Your task to perform on an android device: Go to Google Image 0: 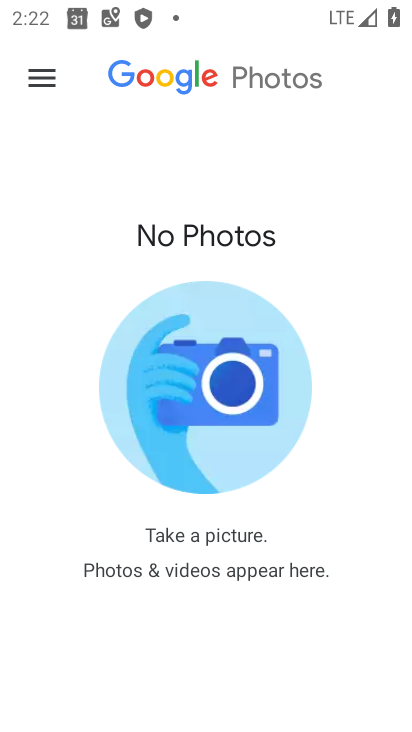
Step 0: press home button
Your task to perform on an android device: Go to Google Image 1: 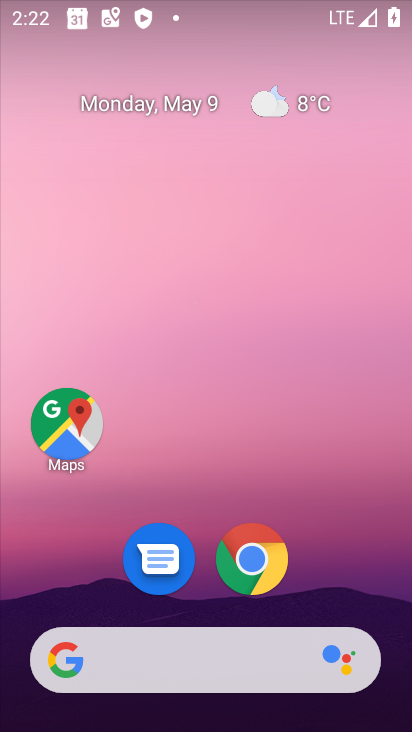
Step 1: click (147, 674)
Your task to perform on an android device: Go to Google Image 2: 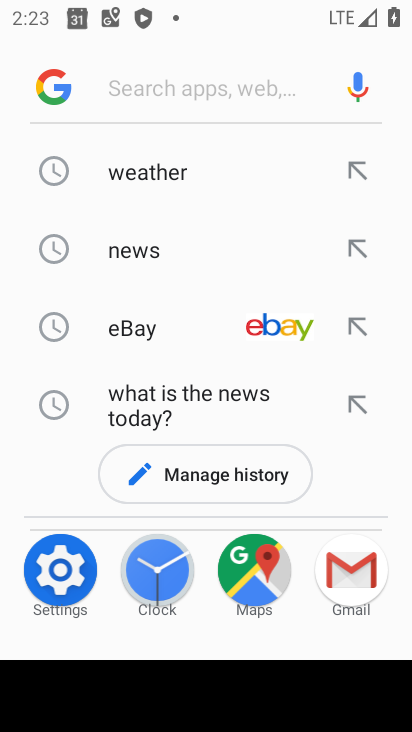
Step 2: task complete